Your task to perform on an android device: change the clock display to analog Image 0: 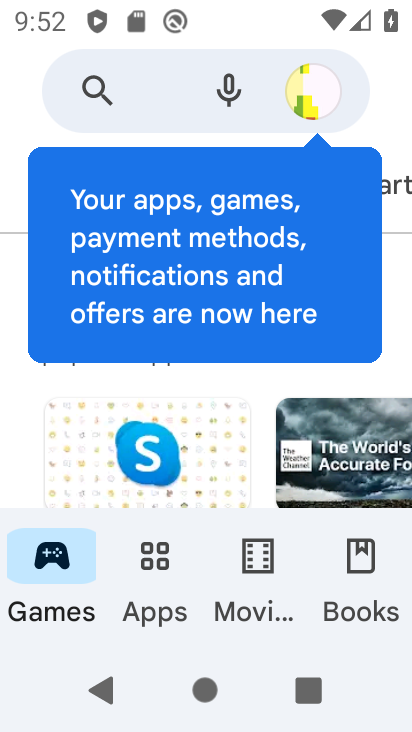
Step 0: press home button
Your task to perform on an android device: change the clock display to analog Image 1: 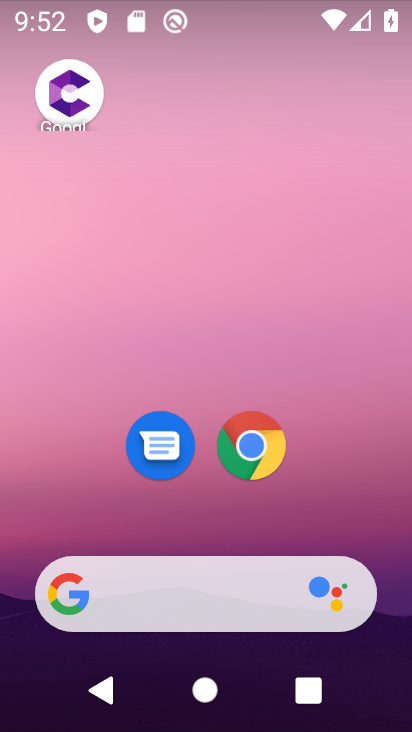
Step 1: drag from (322, 486) to (275, 54)
Your task to perform on an android device: change the clock display to analog Image 2: 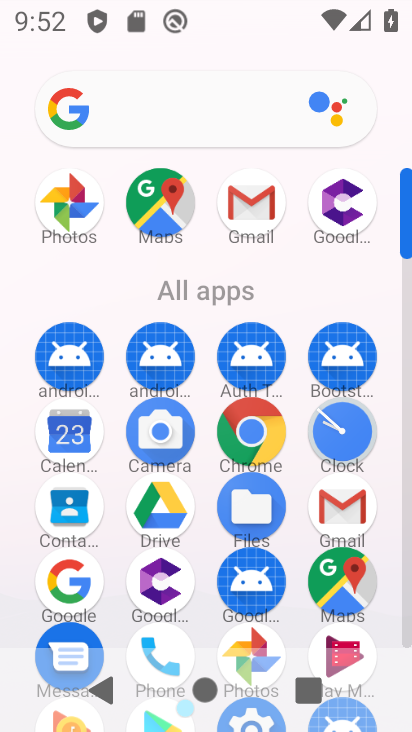
Step 2: click (322, 425)
Your task to perform on an android device: change the clock display to analog Image 3: 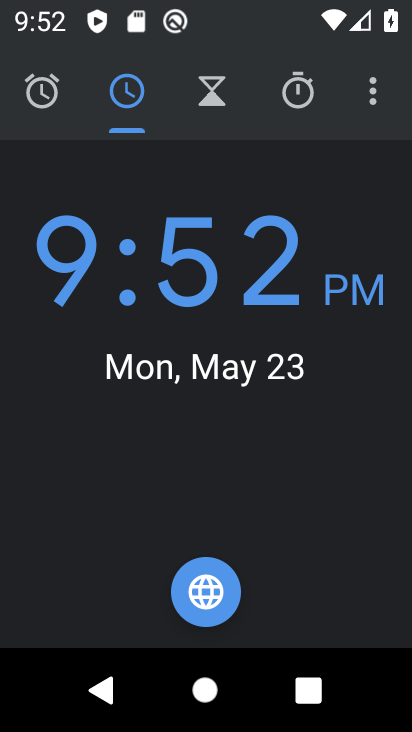
Step 3: click (379, 79)
Your task to perform on an android device: change the clock display to analog Image 4: 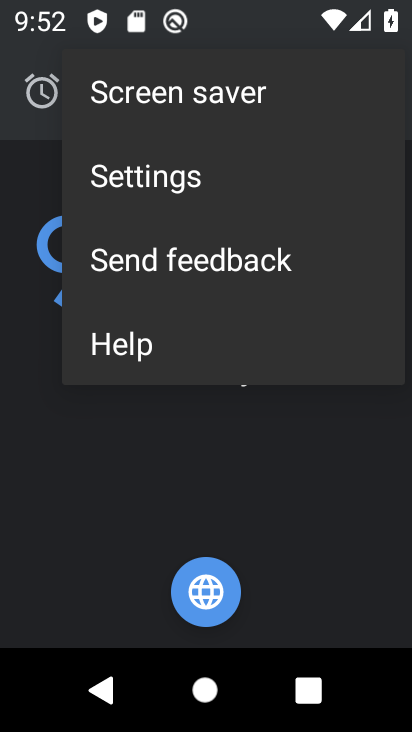
Step 4: click (265, 172)
Your task to perform on an android device: change the clock display to analog Image 5: 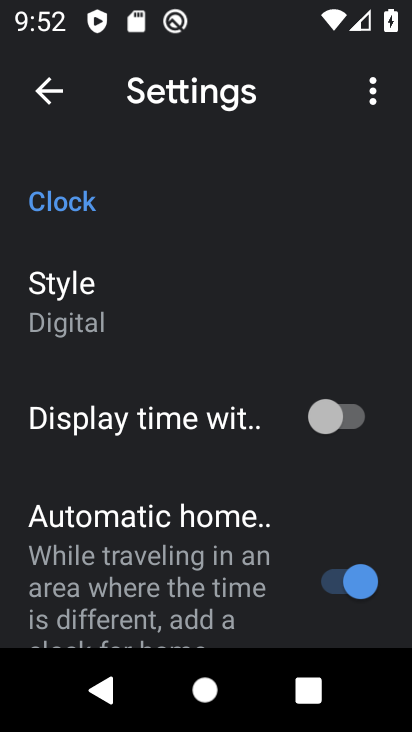
Step 5: click (83, 326)
Your task to perform on an android device: change the clock display to analog Image 6: 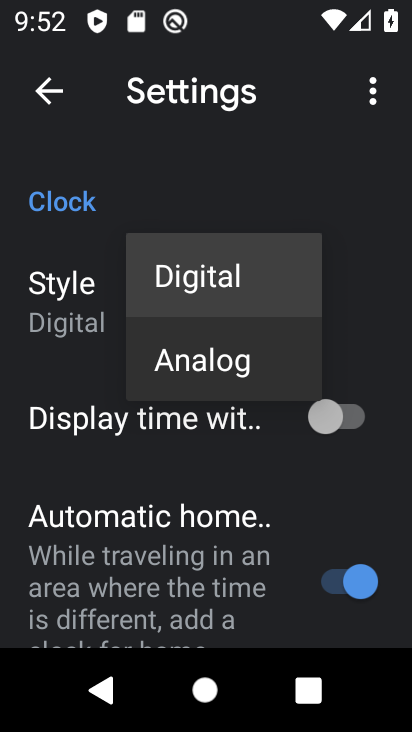
Step 6: click (182, 379)
Your task to perform on an android device: change the clock display to analog Image 7: 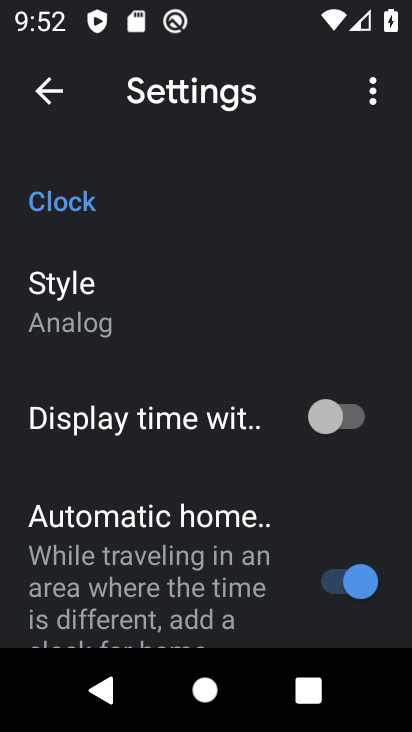
Step 7: task complete